Your task to perform on an android device: open a bookmark in the chrome app Image 0: 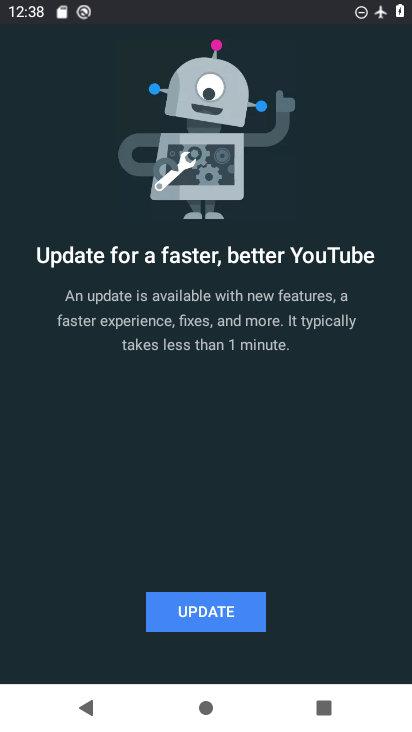
Step 0: press home button
Your task to perform on an android device: open a bookmark in the chrome app Image 1: 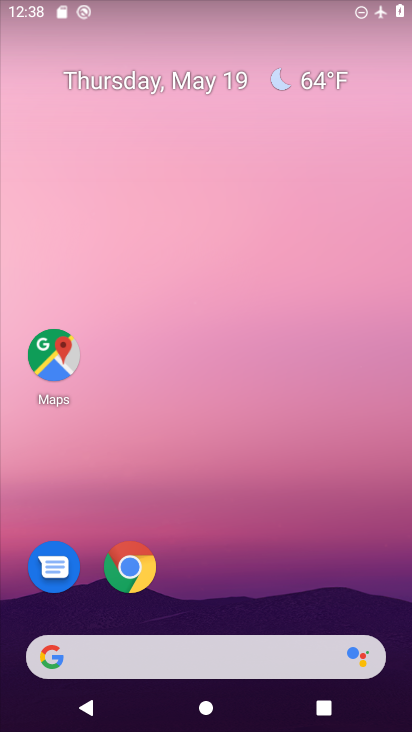
Step 1: click (125, 562)
Your task to perform on an android device: open a bookmark in the chrome app Image 2: 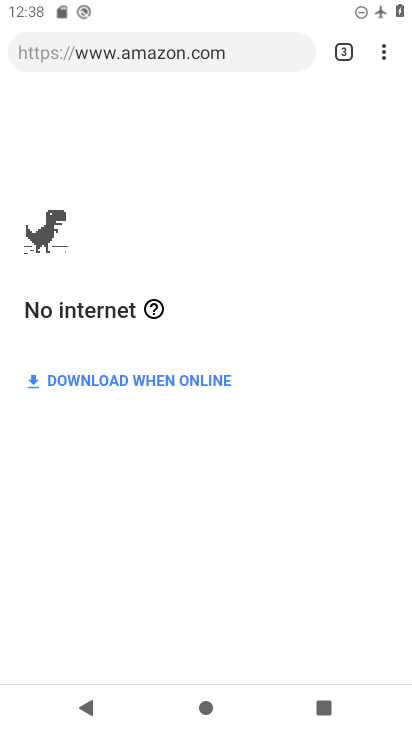
Step 2: task complete